Your task to perform on an android device: install app "DoorDash - Food Delivery" Image 0: 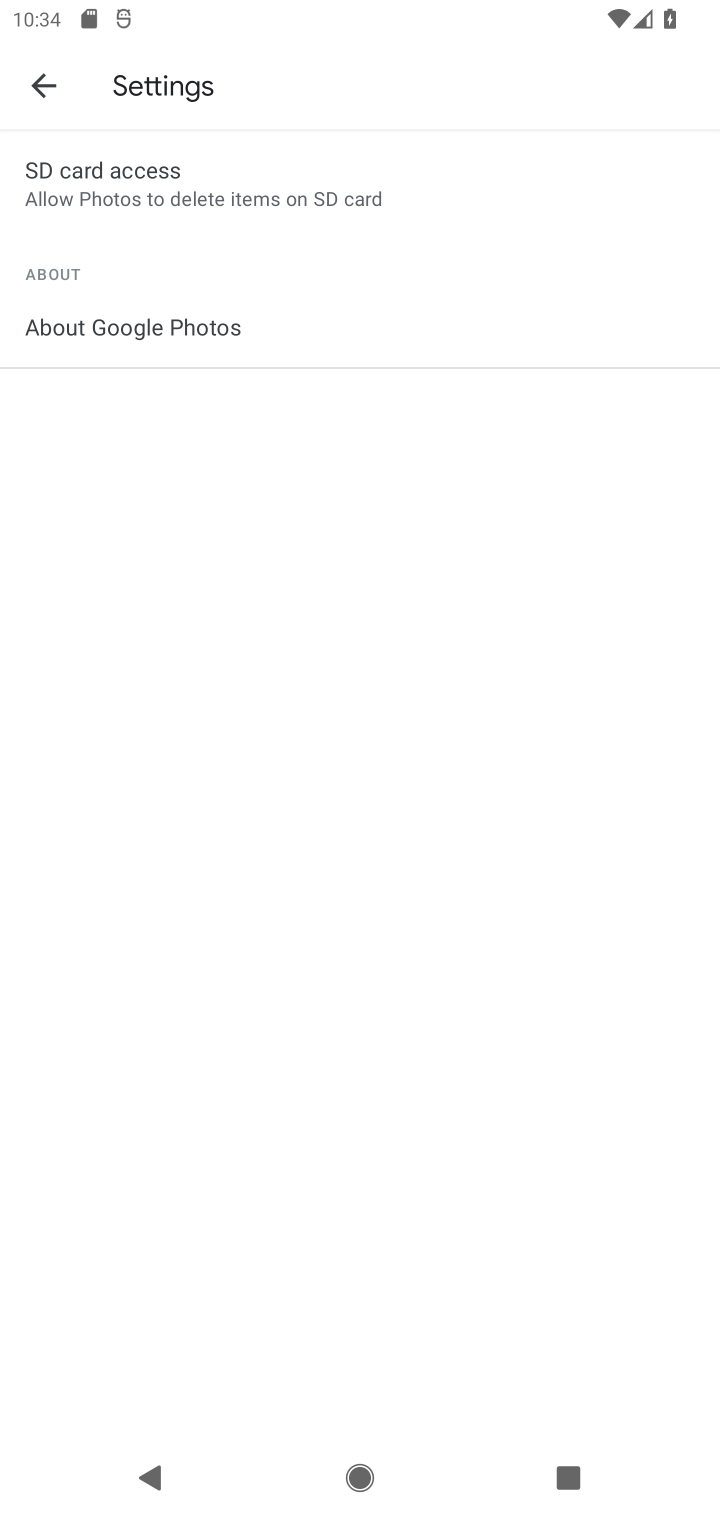
Step 0: press home button
Your task to perform on an android device: install app "DoorDash - Food Delivery" Image 1: 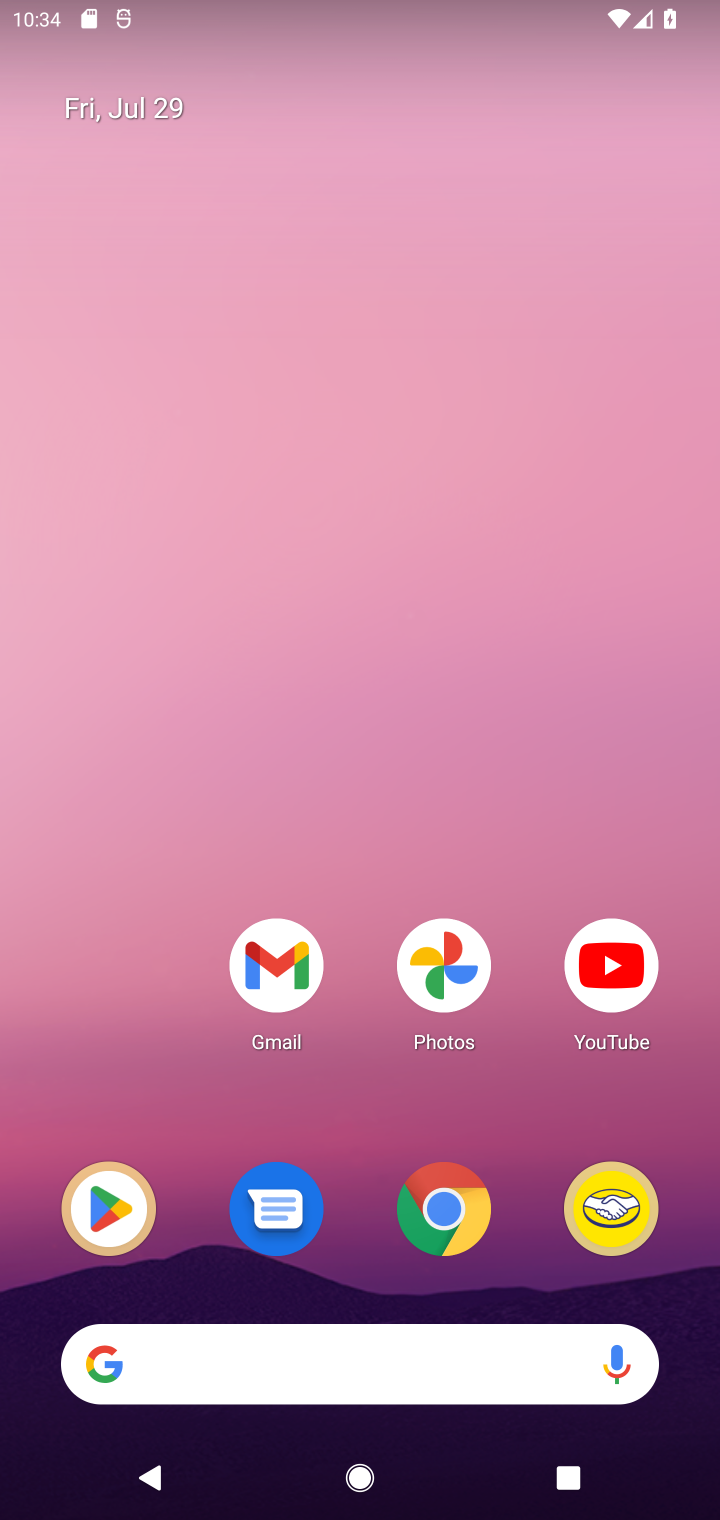
Step 1: drag from (544, 1097) to (557, 112)
Your task to perform on an android device: install app "DoorDash - Food Delivery" Image 2: 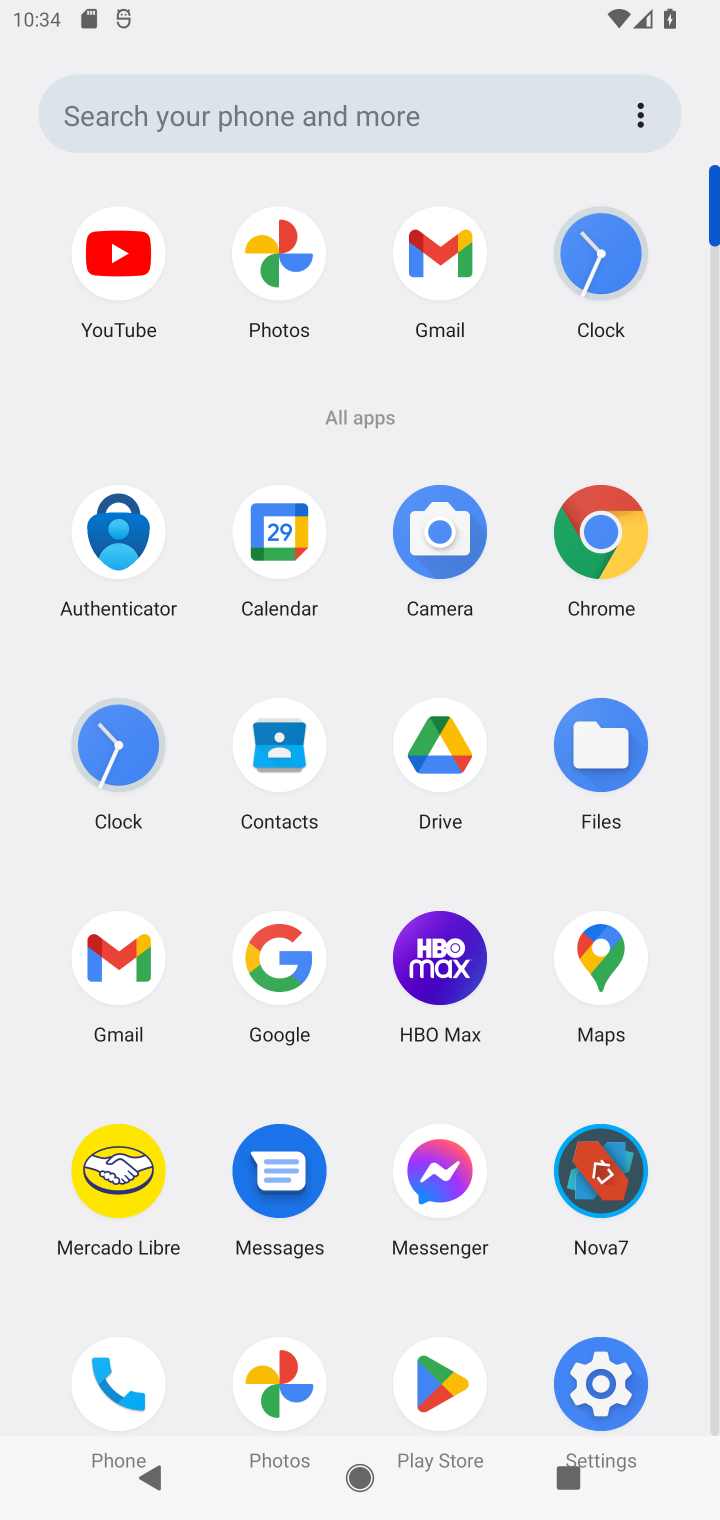
Step 2: click (448, 1392)
Your task to perform on an android device: install app "DoorDash - Food Delivery" Image 3: 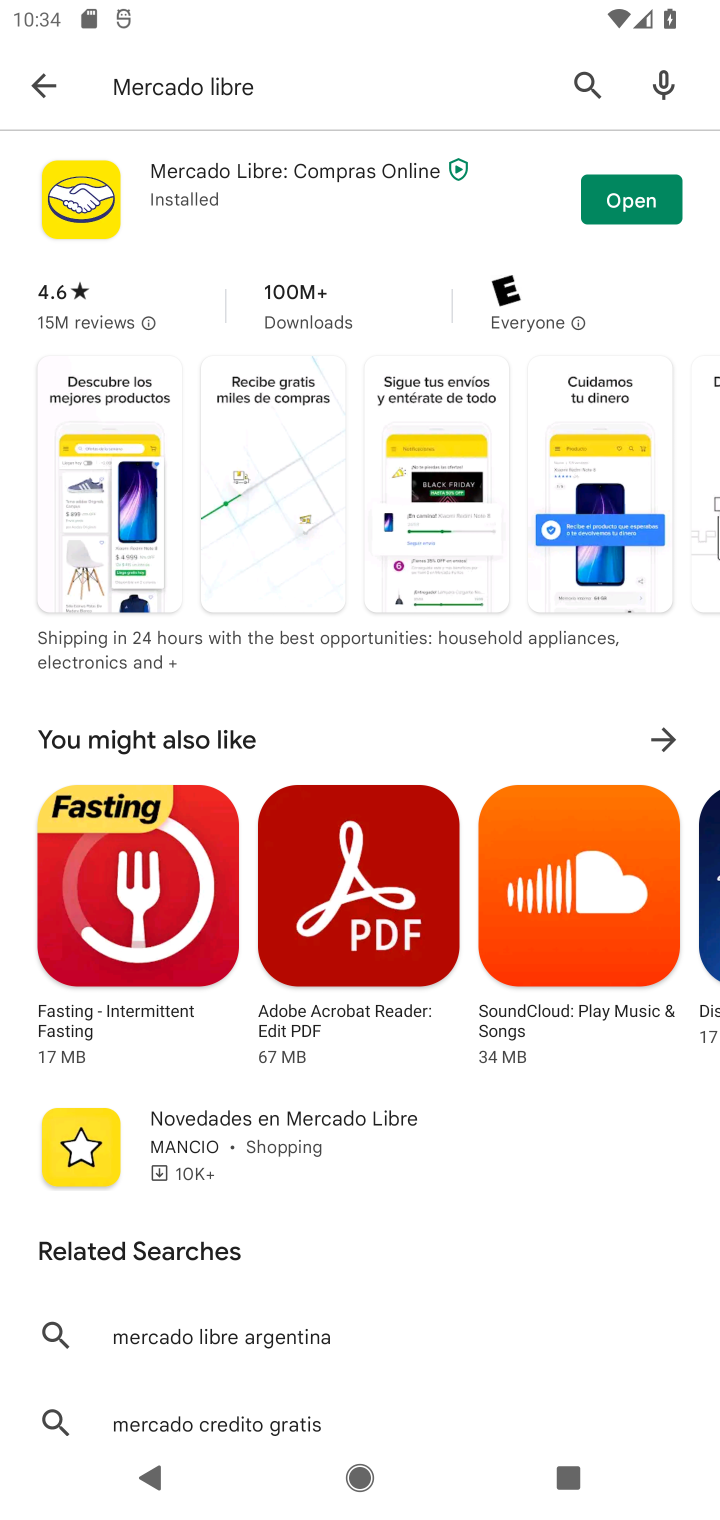
Step 3: click (373, 90)
Your task to perform on an android device: install app "DoorDash - Food Delivery" Image 4: 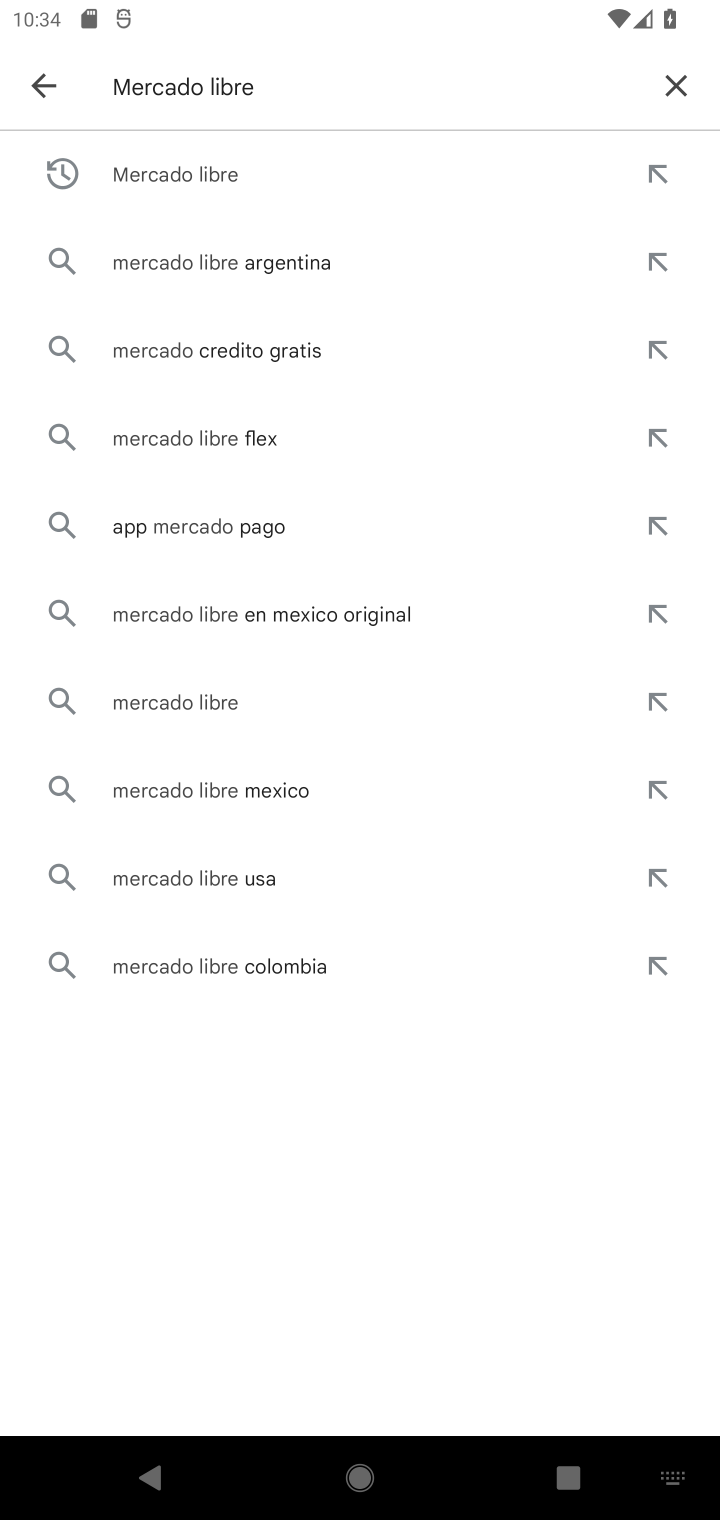
Step 4: click (670, 62)
Your task to perform on an android device: install app "DoorDash - Food Delivery" Image 5: 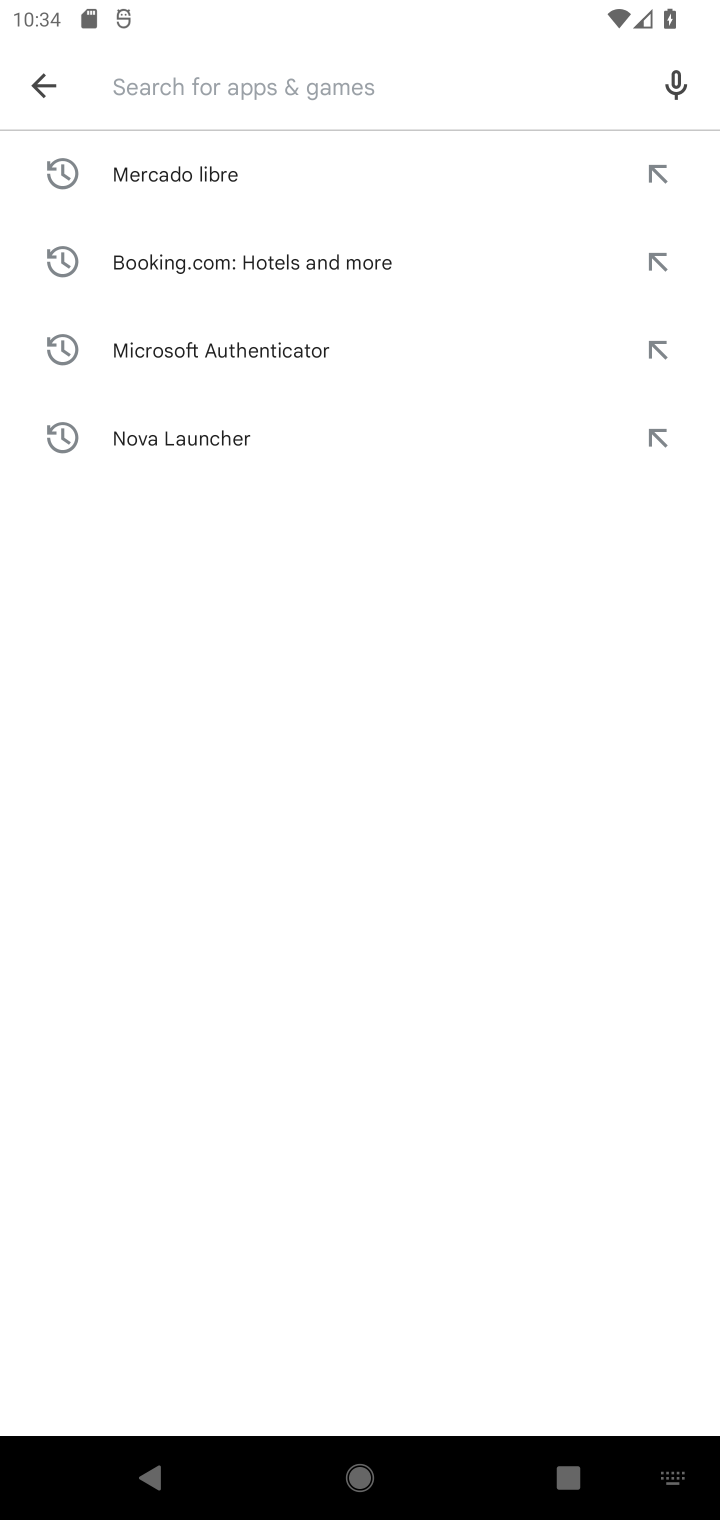
Step 5: type "DoorDash - Food Delivery"
Your task to perform on an android device: install app "DoorDash - Food Delivery" Image 6: 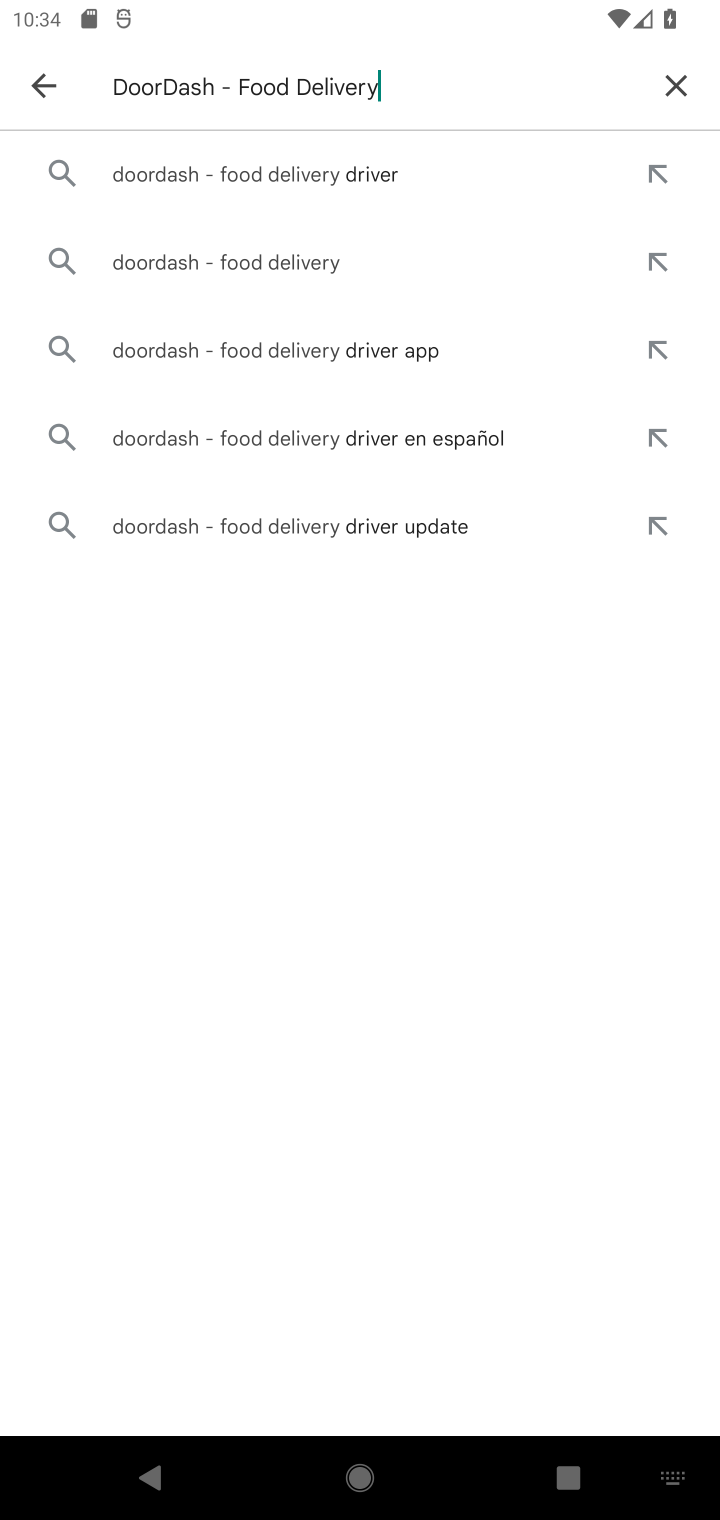
Step 6: press enter
Your task to perform on an android device: install app "DoorDash - Food Delivery" Image 7: 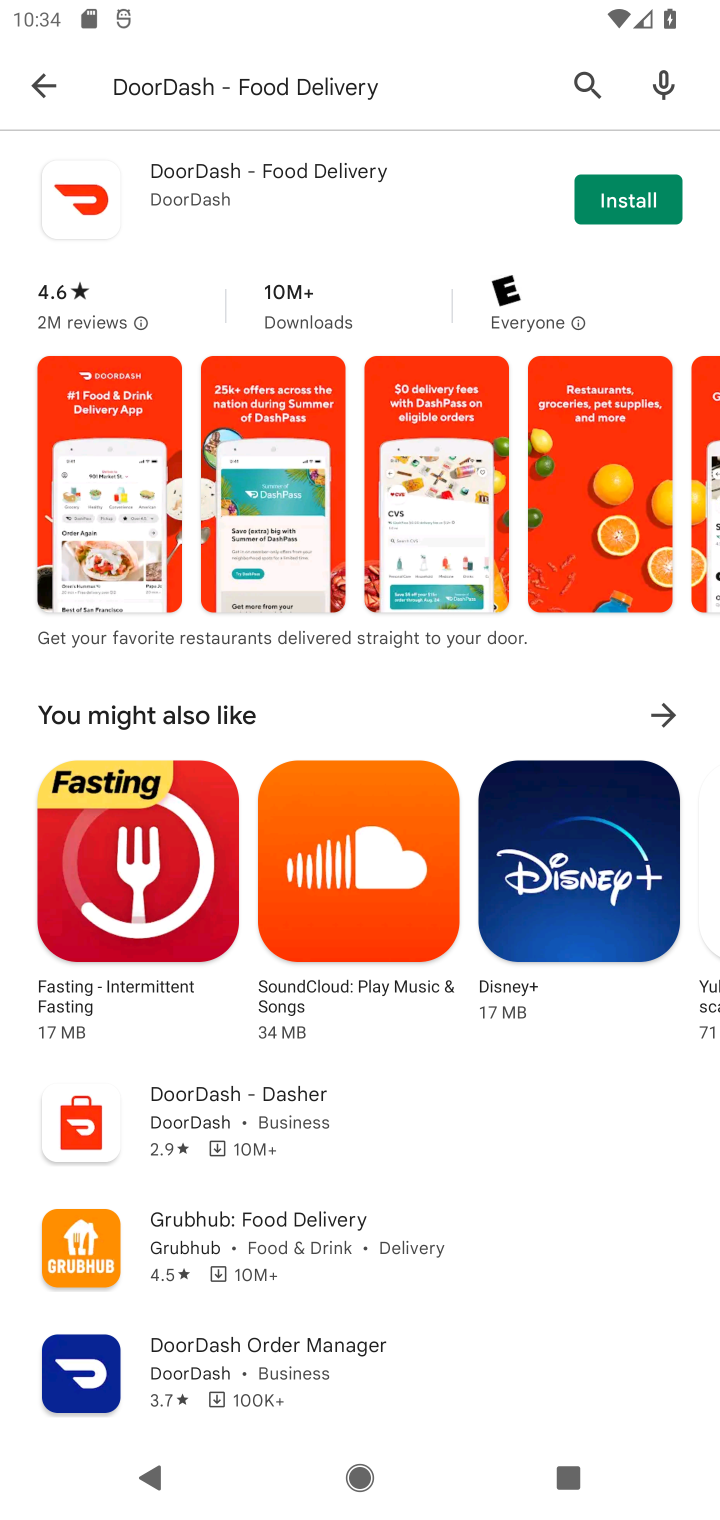
Step 7: click (613, 197)
Your task to perform on an android device: install app "DoorDash - Food Delivery" Image 8: 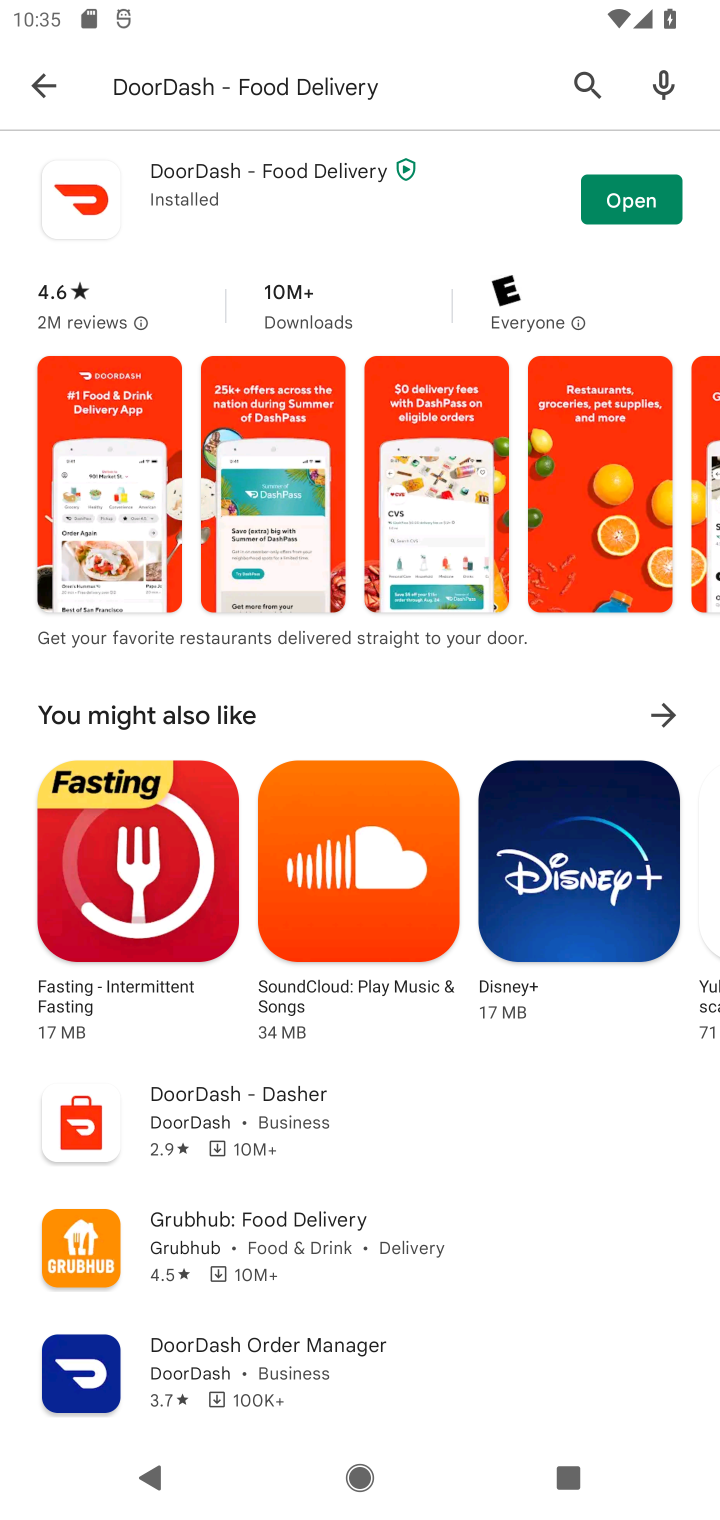
Step 8: task complete